Your task to perform on an android device: Open my contact list Image 0: 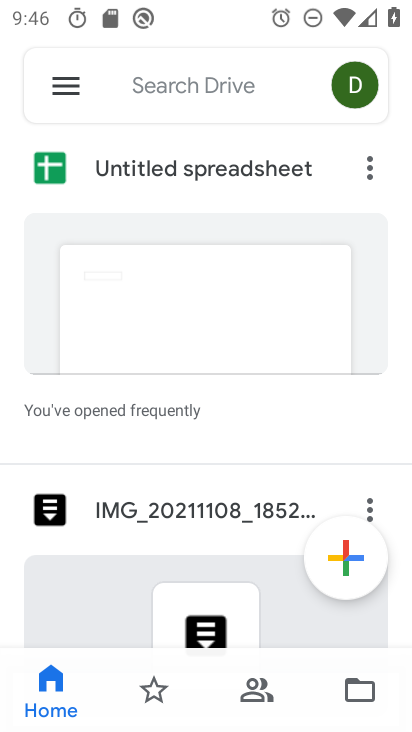
Step 0: press home button
Your task to perform on an android device: Open my contact list Image 1: 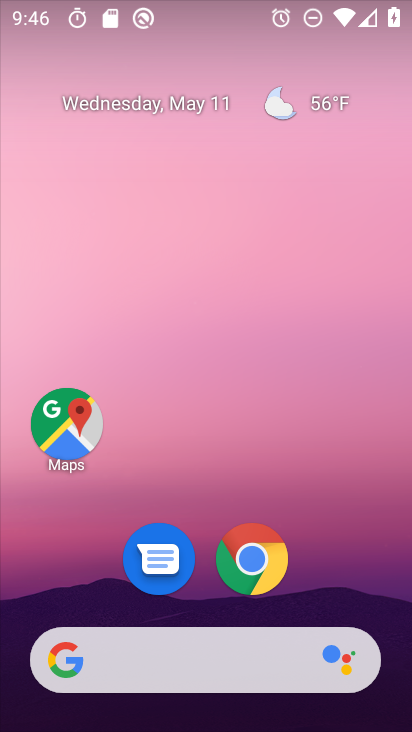
Step 1: drag from (310, 530) to (244, 71)
Your task to perform on an android device: Open my contact list Image 2: 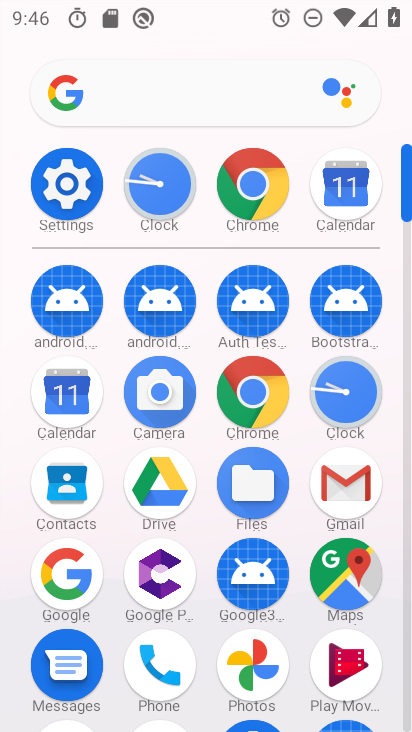
Step 2: click (62, 488)
Your task to perform on an android device: Open my contact list Image 3: 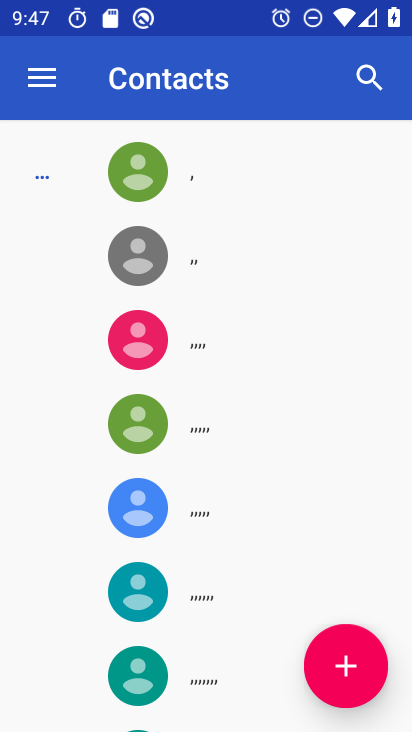
Step 3: task complete